Your task to perform on an android device: Open Youtube and go to "Your channel" Image 0: 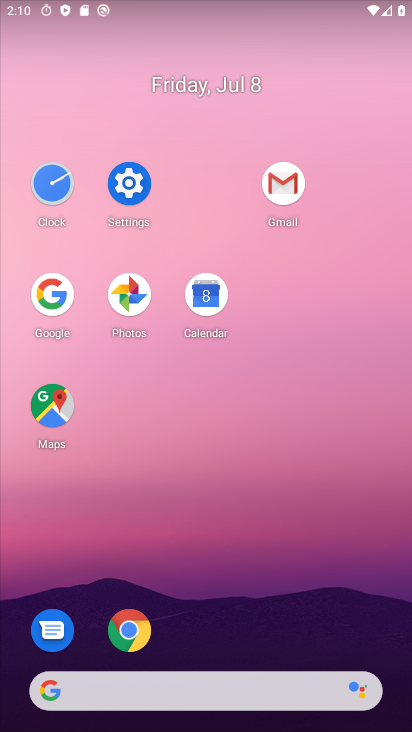
Step 0: drag from (225, 648) to (260, 210)
Your task to perform on an android device: Open Youtube and go to "Your channel" Image 1: 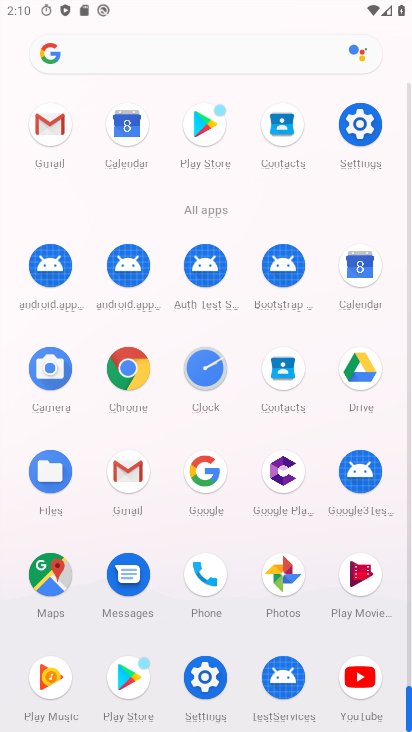
Step 1: drag from (359, 677) to (280, 356)
Your task to perform on an android device: Open Youtube and go to "Your channel" Image 2: 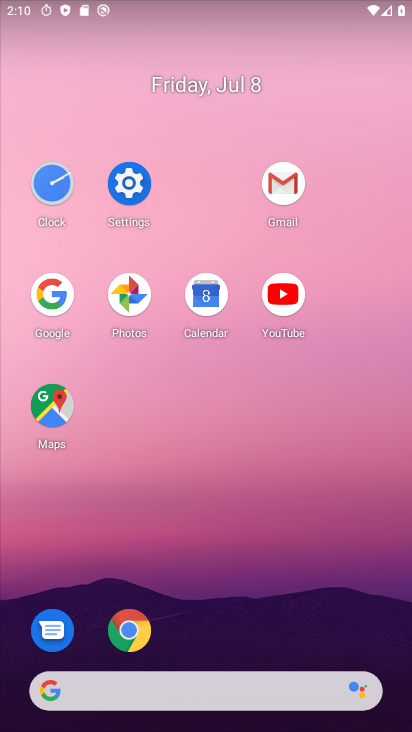
Step 2: click (290, 284)
Your task to perform on an android device: Open Youtube and go to "Your channel" Image 3: 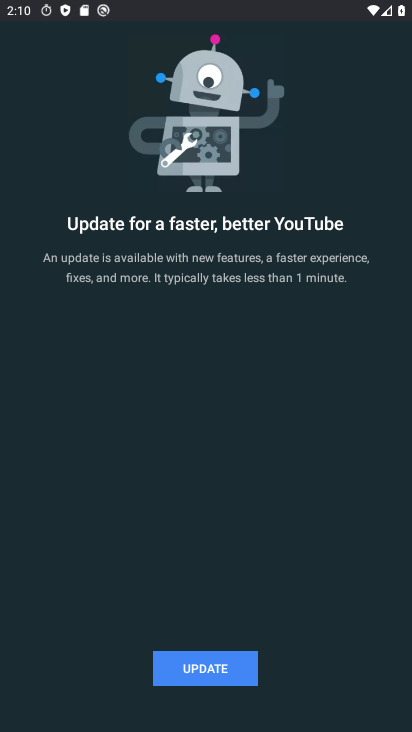
Step 3: click (194, 663)
Your task to perform on an android device: Open Youtube and go to "Your channel" Image 4: 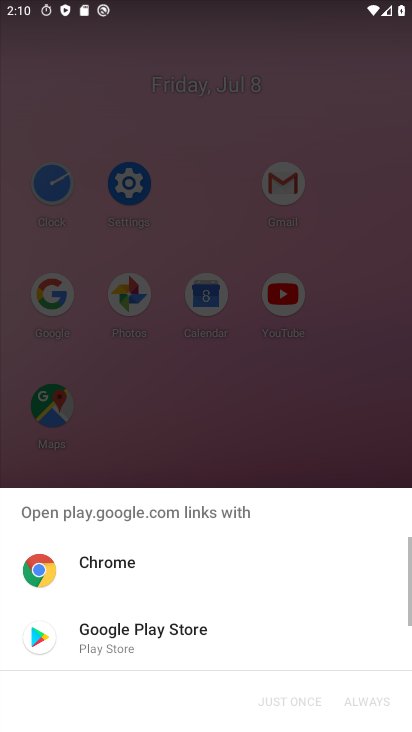
Step 4: click (241, 622)
Your task to perform on an android device: Open Youtube and go to "Your channel" Image 5: 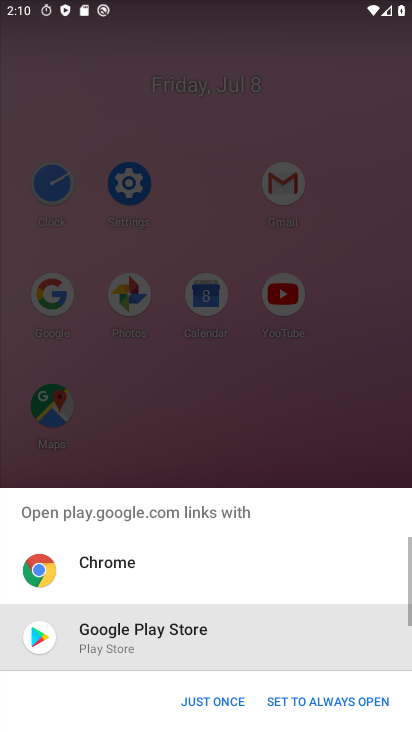
Step 5: click (241, 622)
Your task to perform on an android device: Open Youtube and go to "Your channel" Image 6: 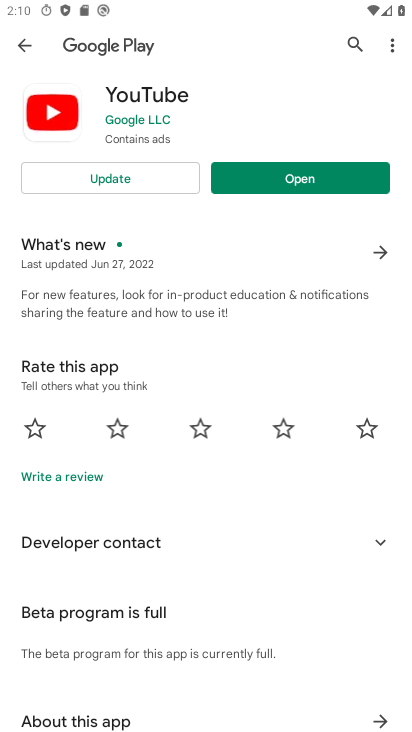
Step 6: click (175, 172)
Your task to perform on an android device: Open Youtube and go to "Your channel" Image 7: 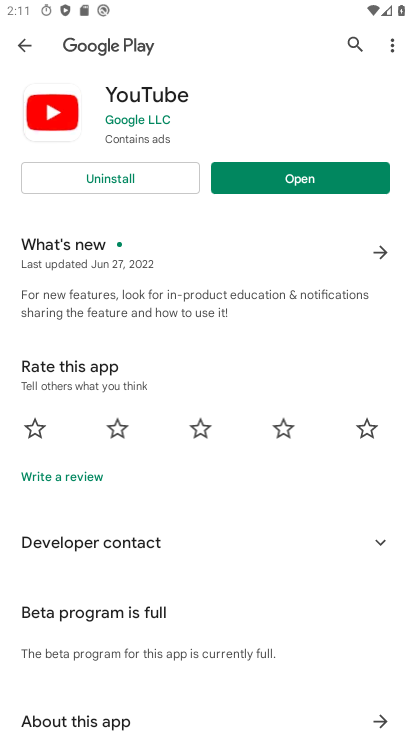
Step 7: click (320, 177)
Your task to perform on an android device: Open Youtube and go to "Your channel" Image 8: 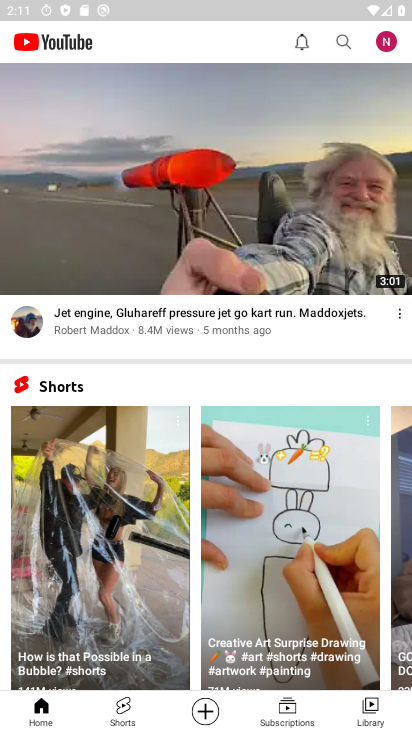
Step 8: click (382, 35)
Your task to perform on an android device: Open Youtube and go to "Your channel" Image 9: 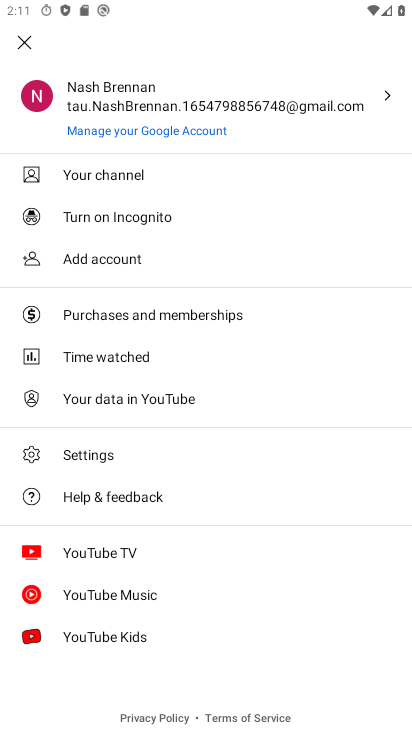
Step 9: click (171, 170)
Your task to perform on an android device: Open Youtube and go to "Your channel" Image 10: 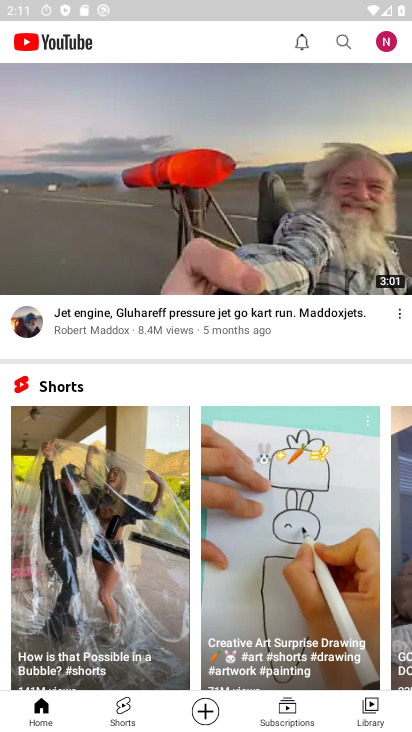
Step 10: click (389, 32)
Your task to perform on an android device: Open Youtube and go to "Your channel" Image 11: 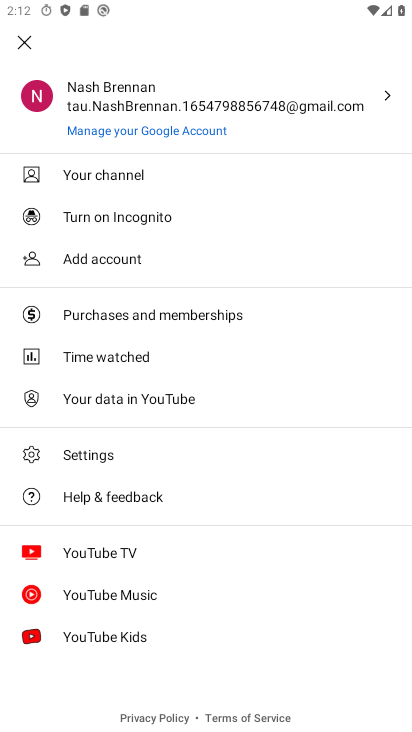
Step 11: click (148, 169)
Your task to perform on an android device: Open Youtube and go to "Your channel" Image 12: 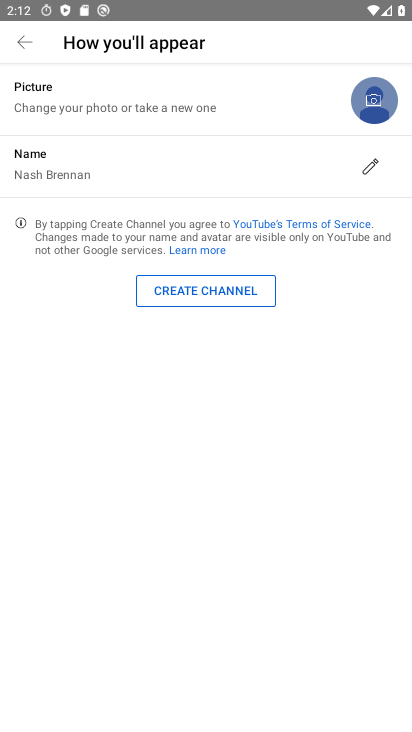
Step 12: task complete